Your task to perform on an android device: make emails show in primary in the gmail app Image 0: 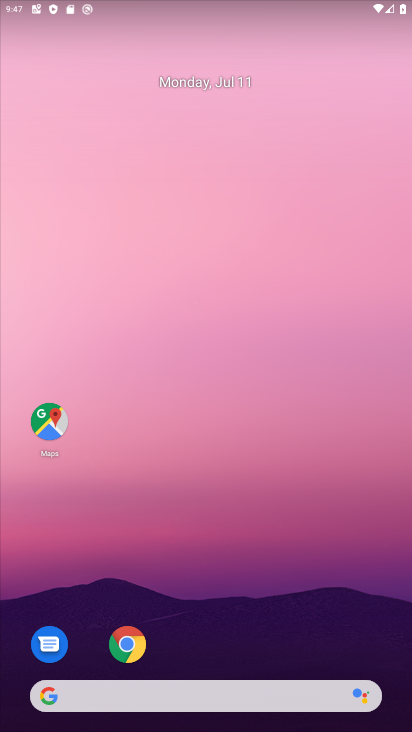
Step 0: drag from (186, 643) to (189, 192)
Your task to perform on an android device: make emails show in primary in the gmail app Image 1: 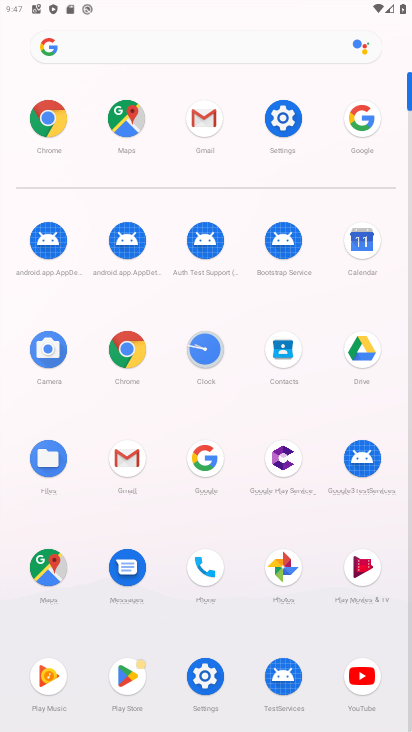
Step 1: click (203, 115)
Your task to perform on an android device: make emails show in primary in the gmail app Image 2: 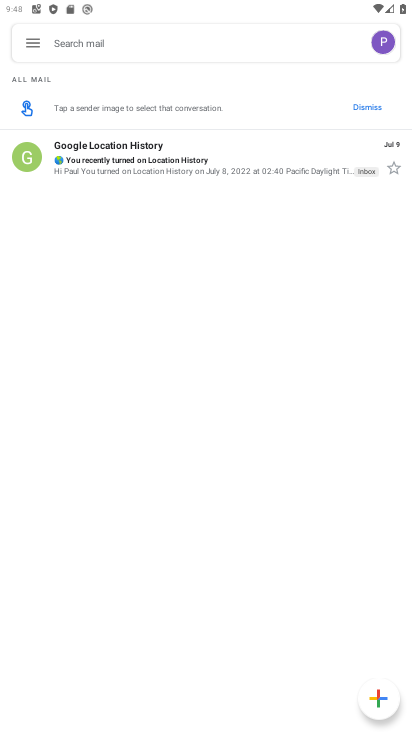
Step 2: click (32, 45)
Your task to perform on an android device: make emails show in primary in the gmail app Image 3: 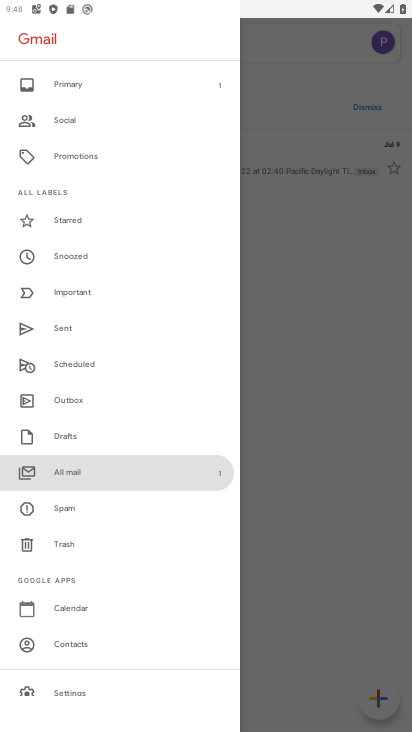
Step 3: click (78, 689)
Your task to perform on an android device: make emails show in primary in the gmail app Image 4: 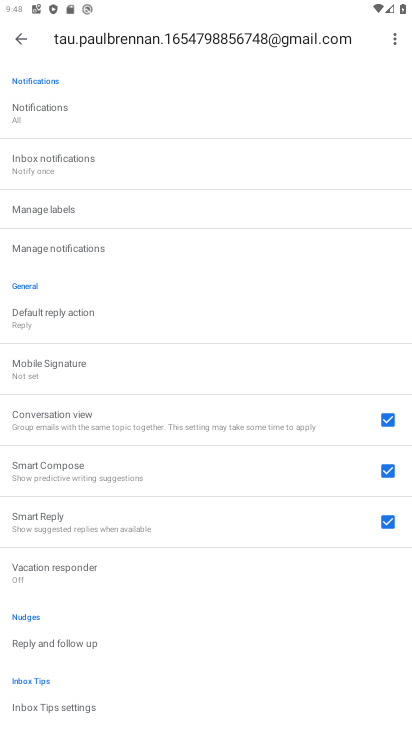
Step 4: click (38, 115)
Your task to perform on an android device: make emails show in primary in the gmail app Image 5: 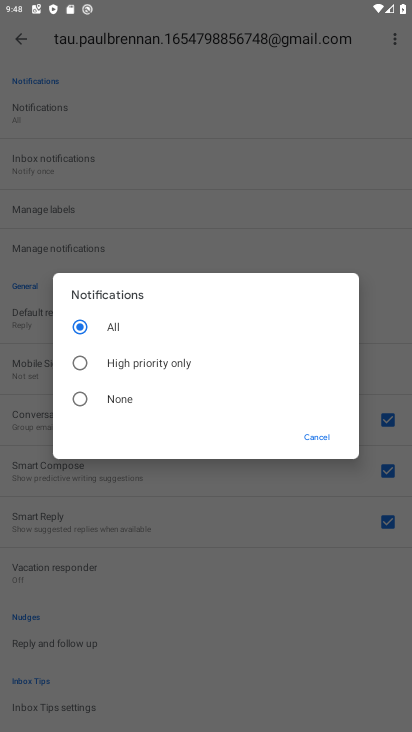
Step 5: click (123, 177)
Your task to perform on an android device: make emails show in primary in the gmail app Image 6: 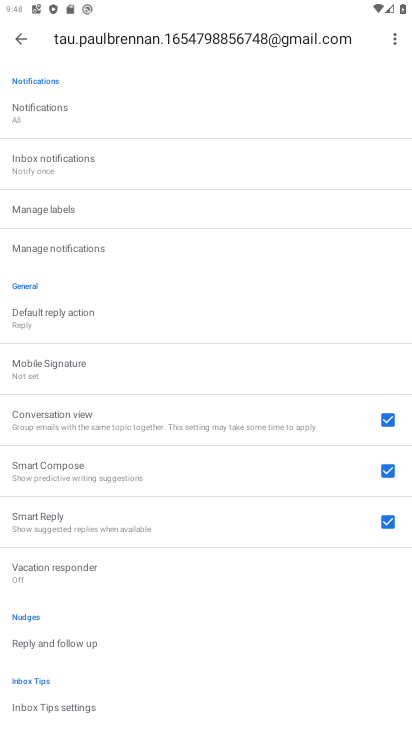
Step 6: drag from (152, 114) to (177, 419)
Your task to perform on an android device: make emails show in primary in the gmail app Image 7: 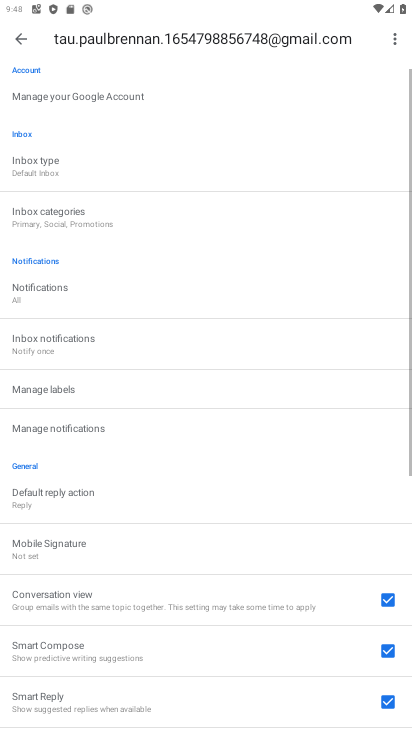
Step 7: click (58, 179)
Your task to perform on an android device: make emails show in primary in the gmail app Image 8: 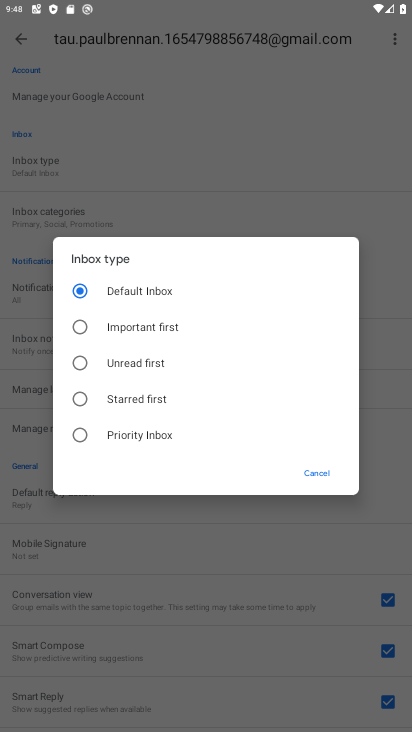
Step 8: click (117, 157)
Your task to perform on an android device: make emails show in primary in the gmail app Image 9: 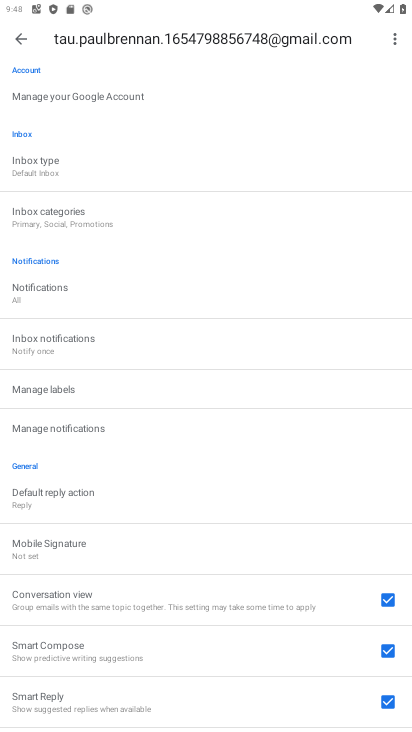
Step 9: click (70, 218)
Your task to perform on an android device: make emails show in primary in the gmail app Image 10: 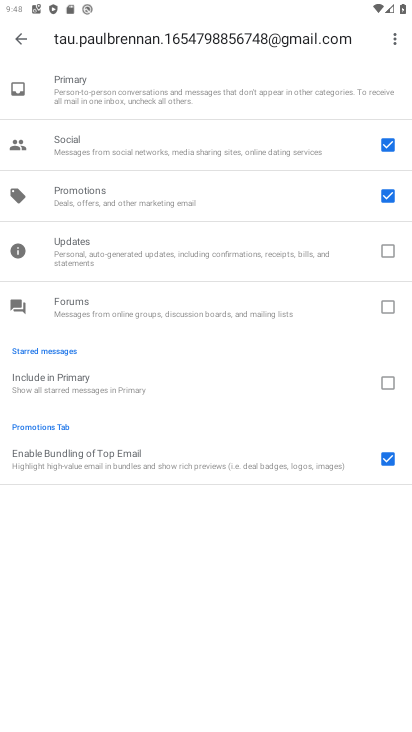
Step 10: click (70, 218)
Your task to perform on an android device: make emails show in primary in the gmail app Image 11: 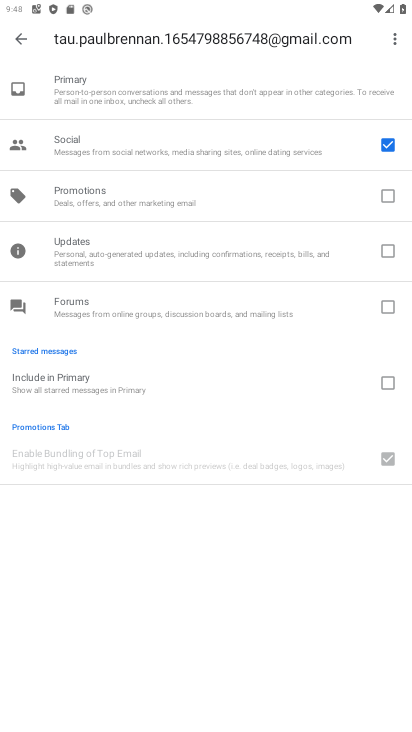
Step 11: click (391, 145)
Your task to perform on an android device: make emails show in primary in the gmail app Image 12: 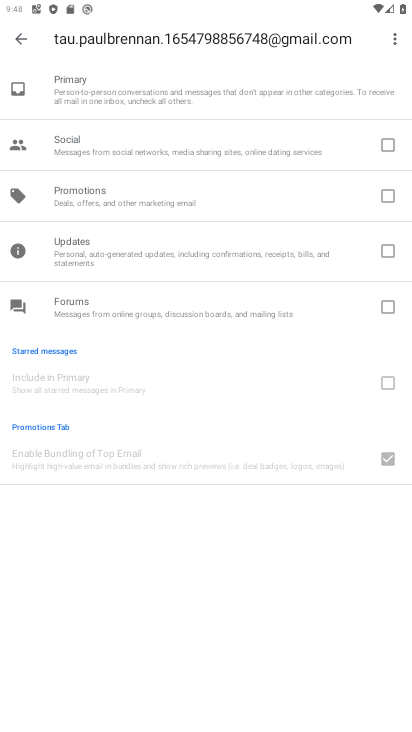
Step 12: task complete